Your task to perform on an android device: Show me popular videos on Youtube Image 0: 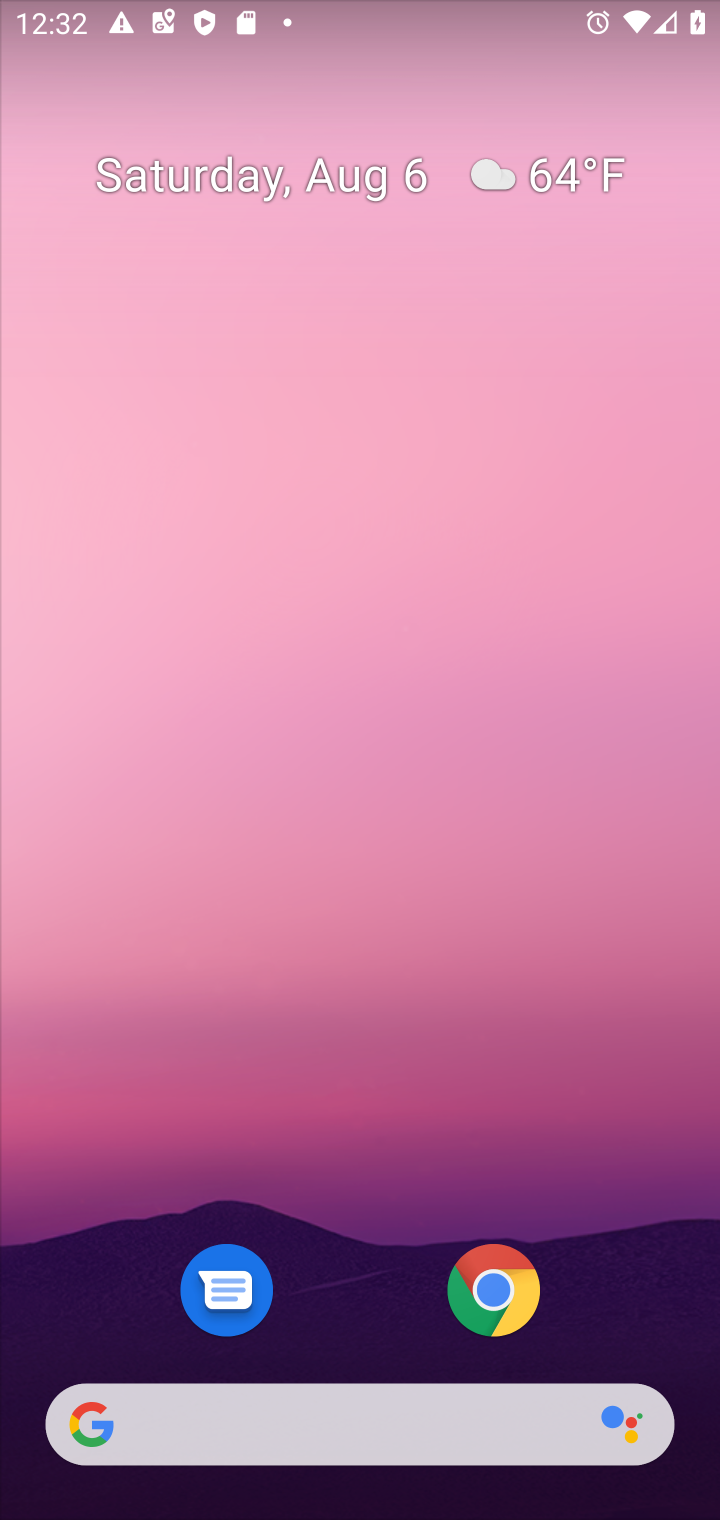
Step 0: press home button
Your task to perform on an android device: Show me popular videos on Youtube Image 1: 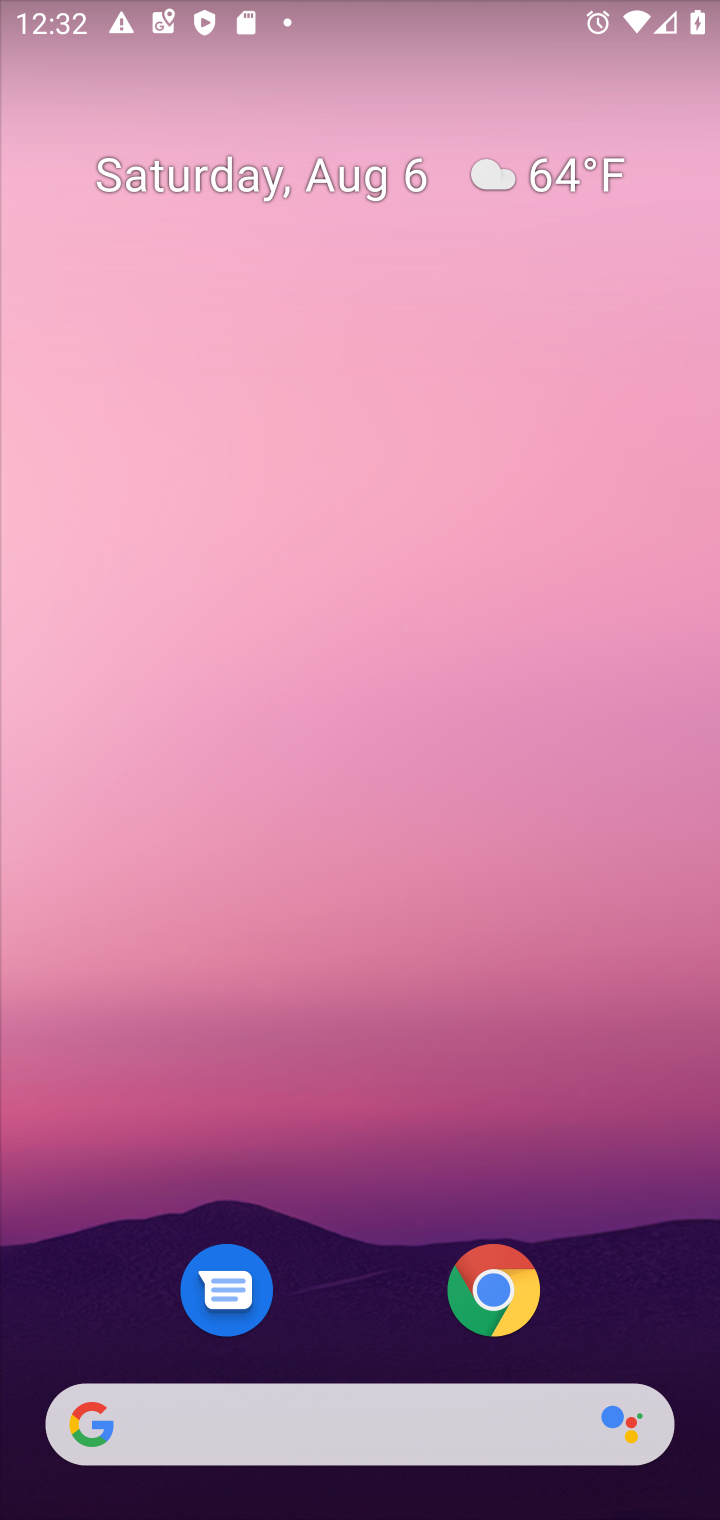
Step 1: drag from (367, 1334) to (382, 81)
Your task to perform on an android device: Show me popular videos on Youtube Image 2: 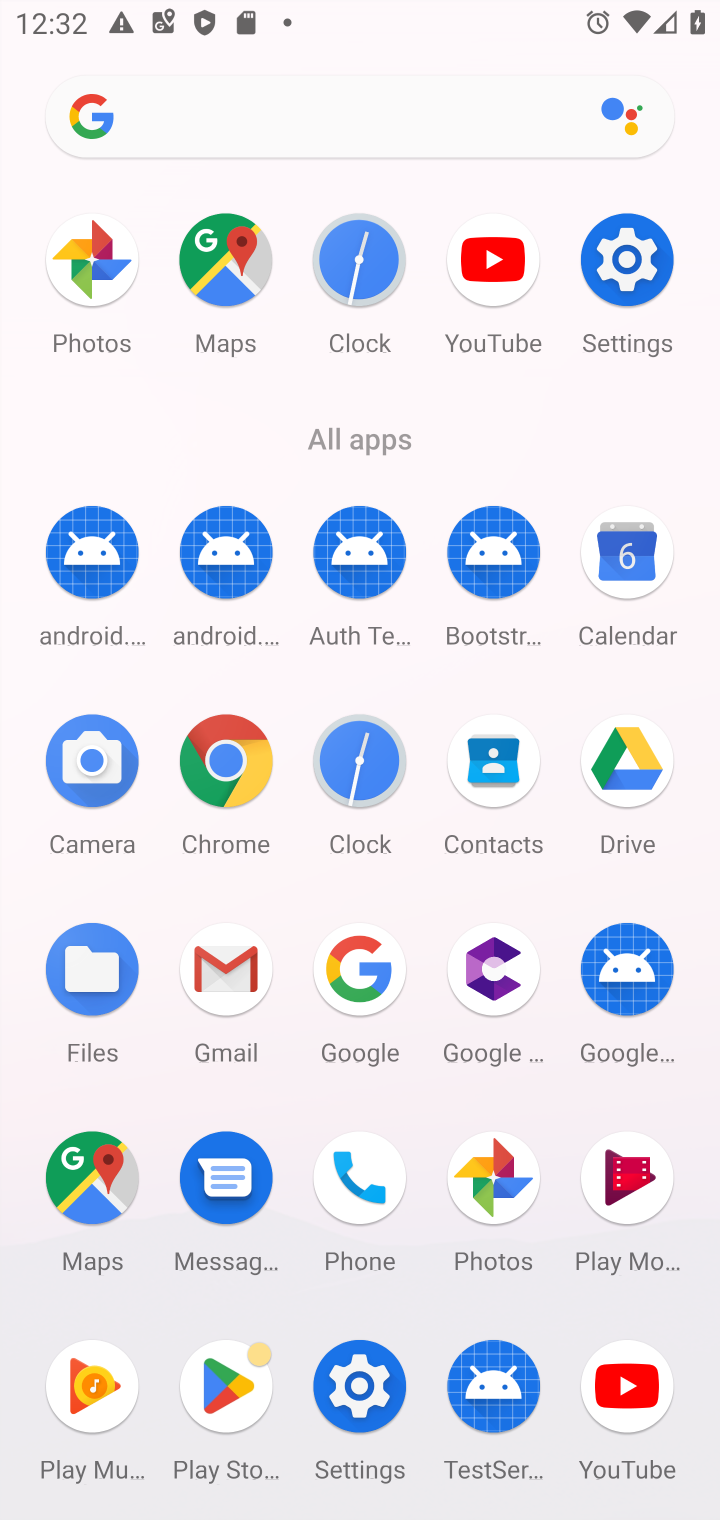
Step 2: click (626, 1378)
Your task to perform on an android device: Show me popular videos on Youtube Image 3: 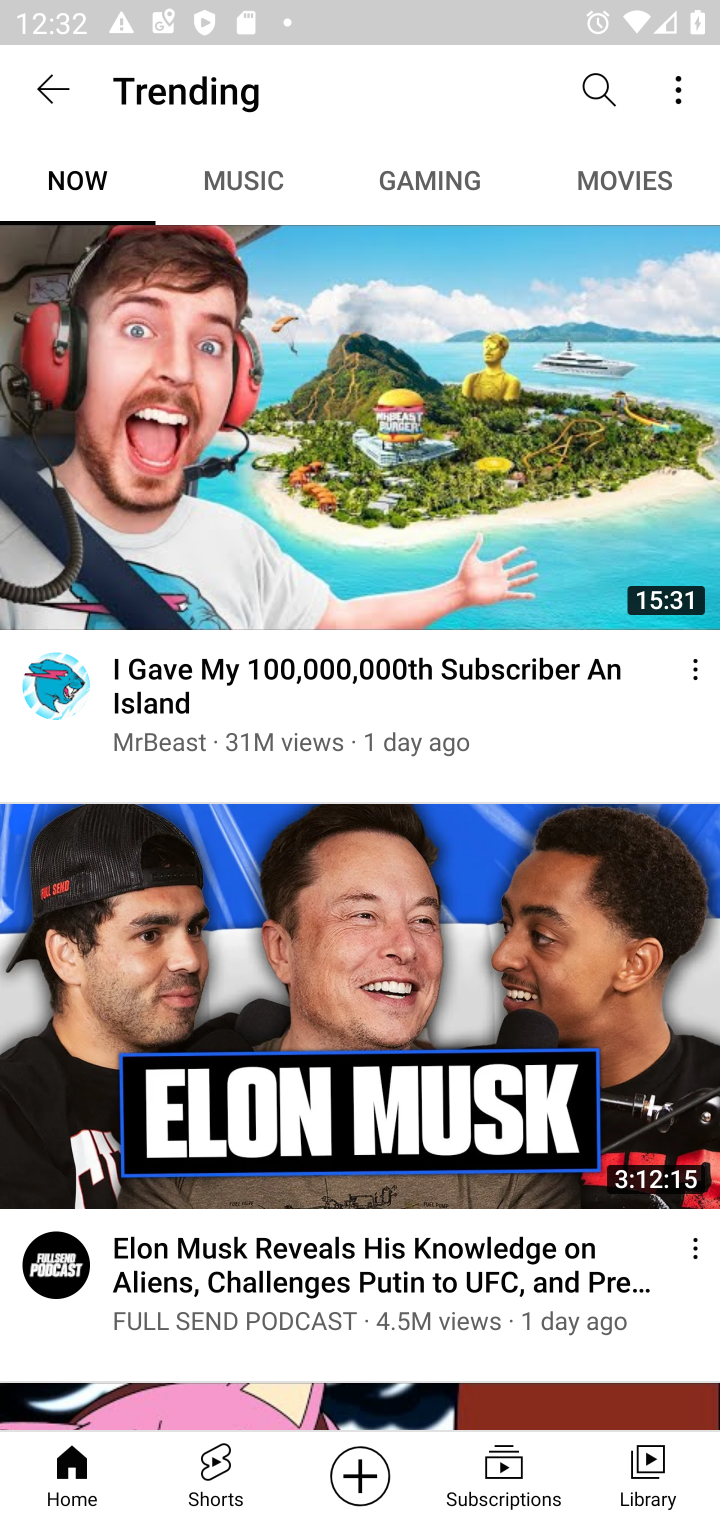
Step 3: drag from (371, 1139) to (426, 34)
Your task to perform on an android device: Show me popular videos on Youtube Image 4: 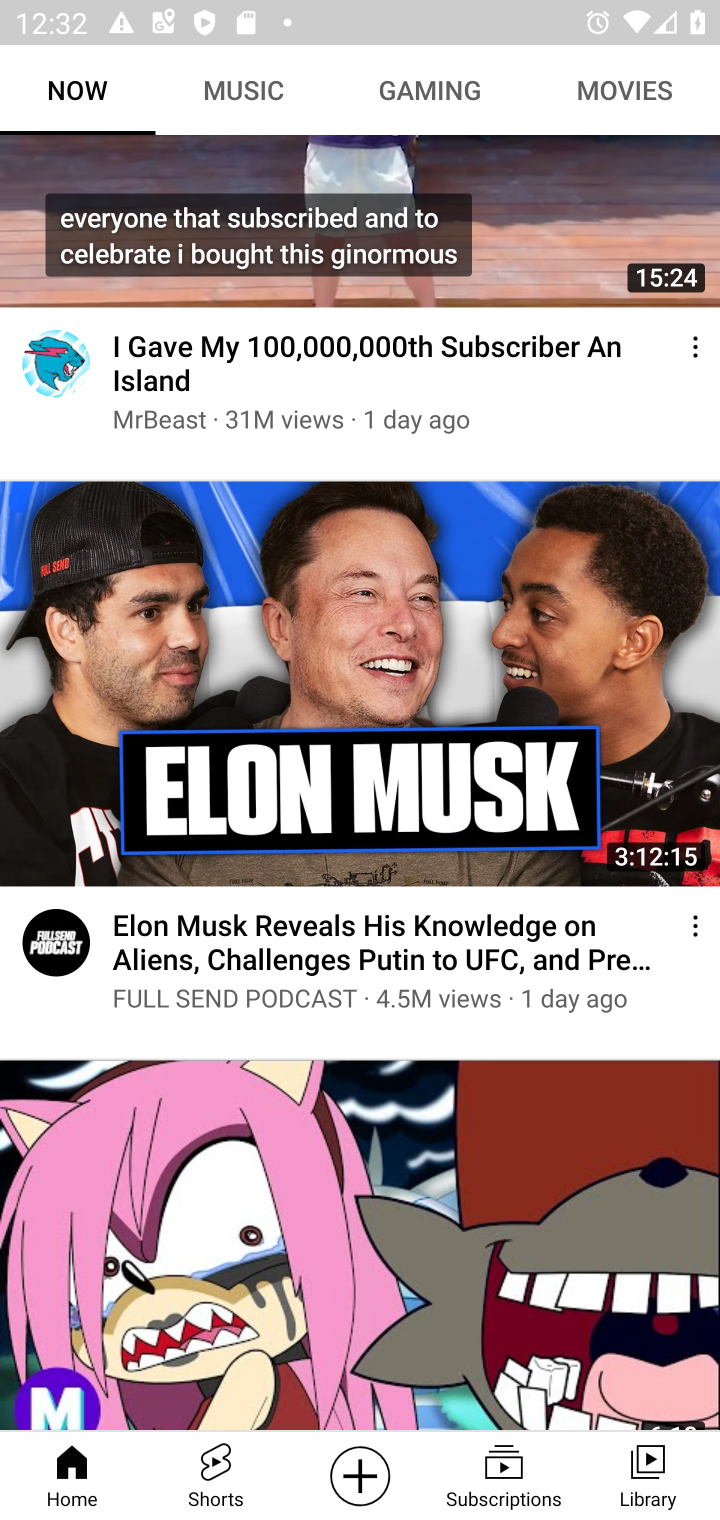
Step 4: drag from (455, 436) to (487, 364)
Your task to perform on an android device: Show me popular videos on Youtube Image 5: 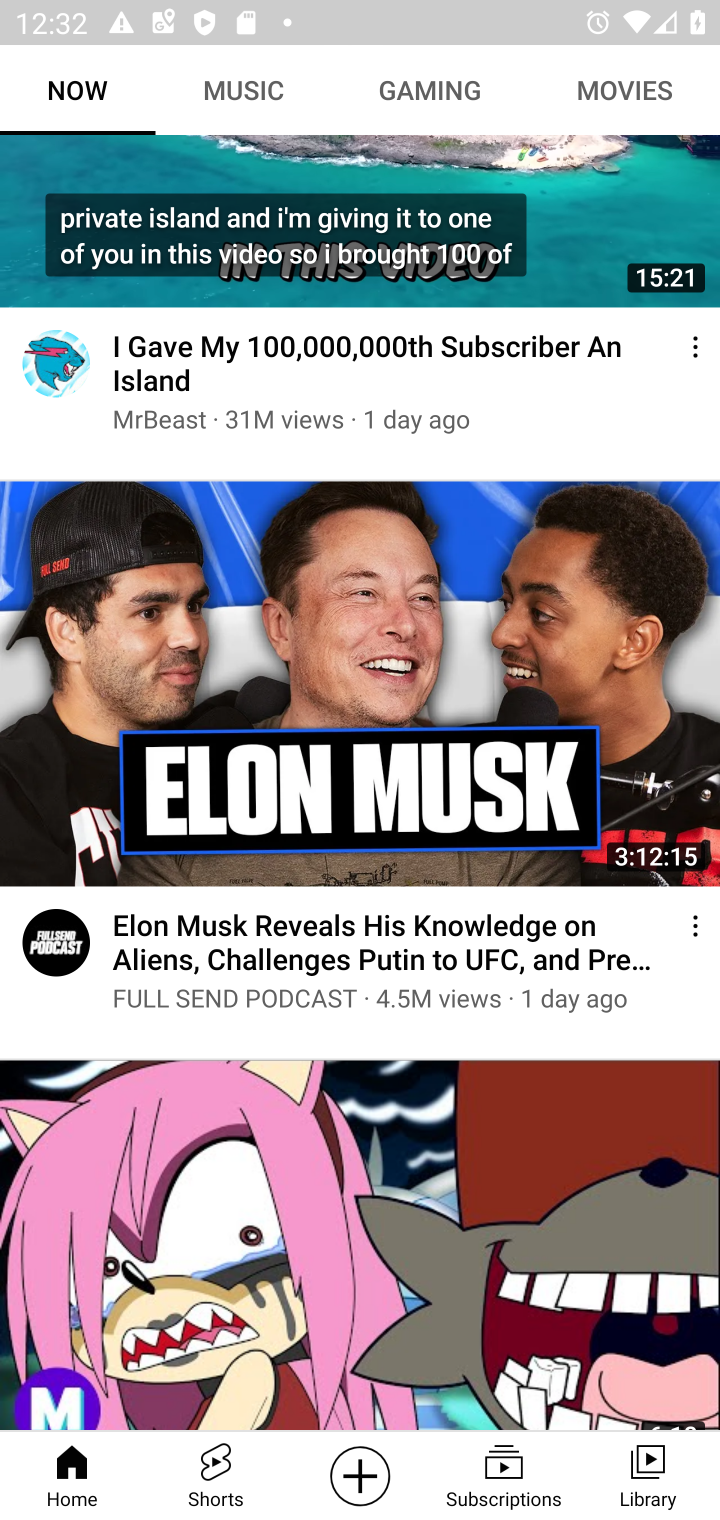
Step 5: click (544, 226)
Your task to perform on an android device: Show me popular videos on Youtube Image 6: 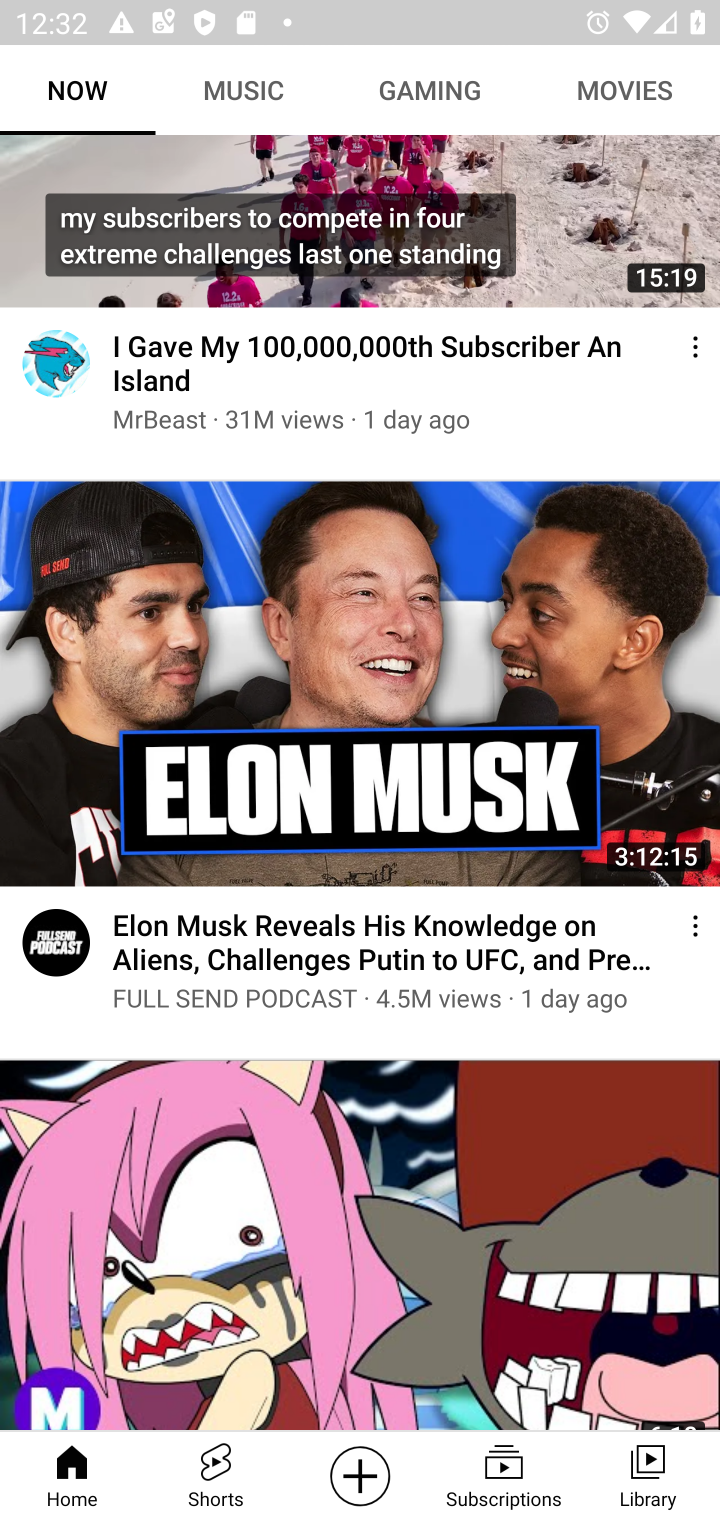
Step 6: task complete